Your task to perform on an android device: clear all cookies in the chrome app Image 0: 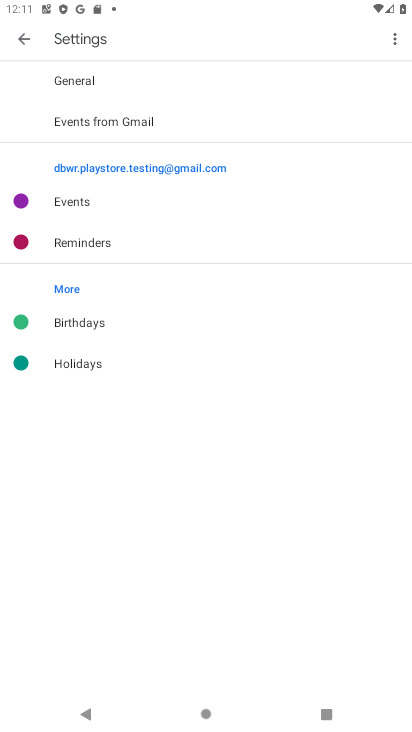
Step 0: press home button
Your task to perform on an android device: clear all cookies in the chrome app Image 1: 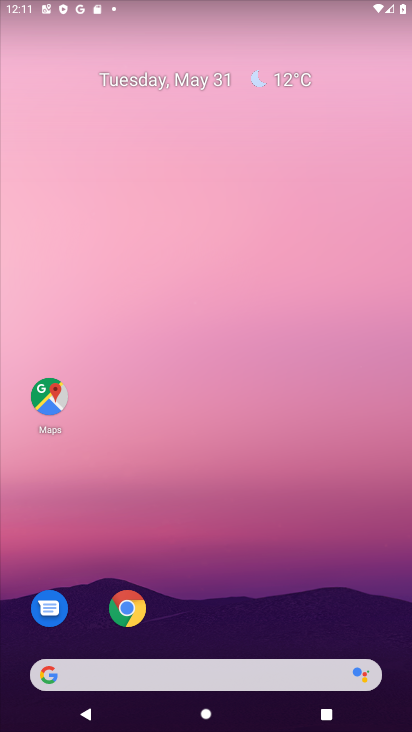
Step 1: click (125, 608)
Your task to perform on an android device: clear all cookies in the chrome app Image 2: 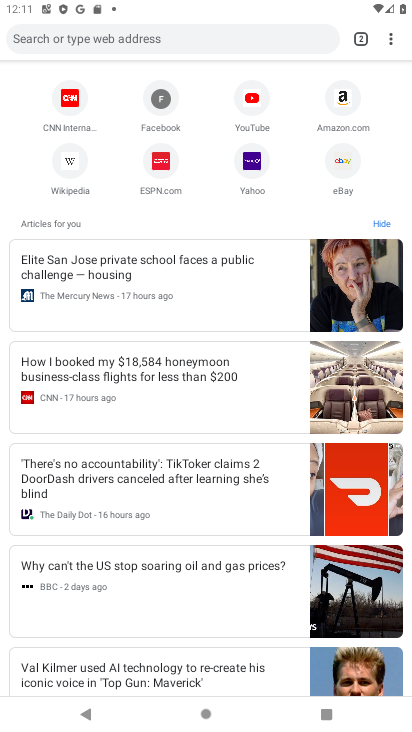
Step 2: click (385, 36)
Your task to perform on an android device: clear all cookies in the chrome app Image 3: 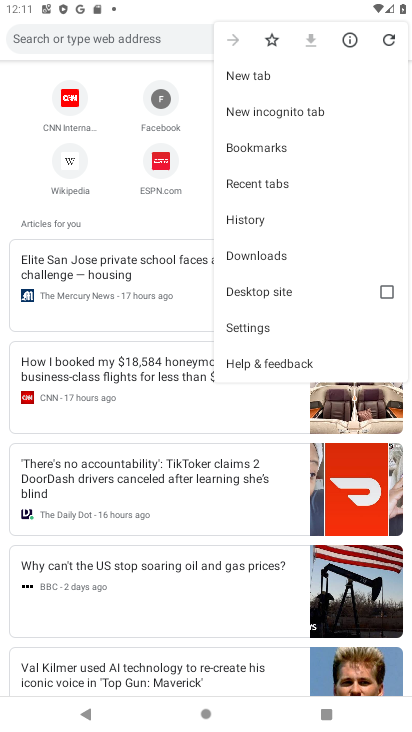
Step 3: click (282, 325)
Your task to perform on an android device: clear all cookies in the chrome app Image 4: 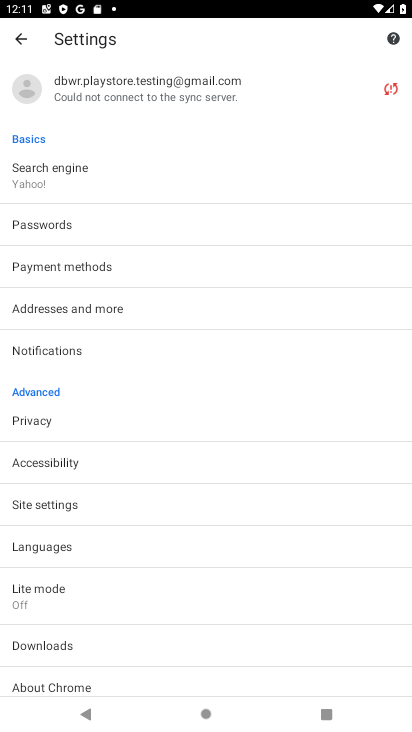
Step 4: drag from (82, 683) to (135, 345)
Your task to perform on an android device: clear all cookies in the chrome app Image 5: 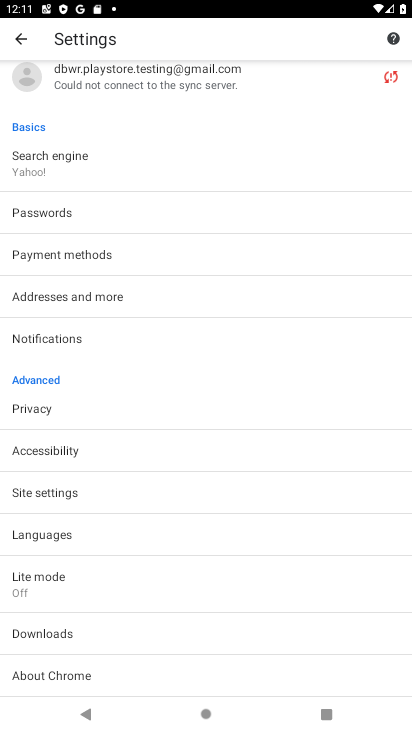
Step 5: click (56, 413)
Your task to perform on an android device: clear all cookies in the chrome app Image 6: 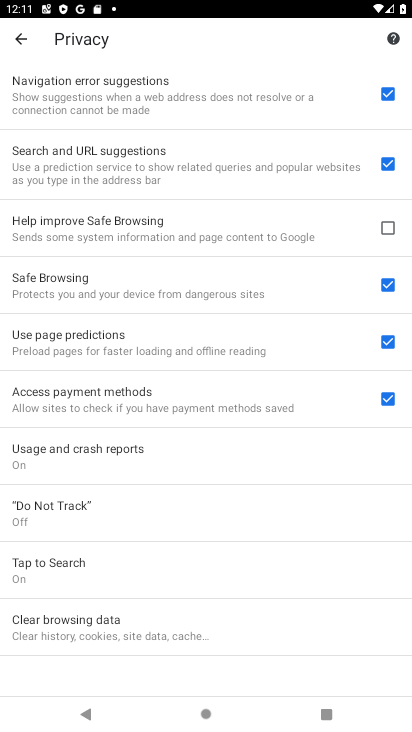
Step 6: click (115, 627)
Your task to perform on an android device: clear all cookies in the chrome app Image 7: 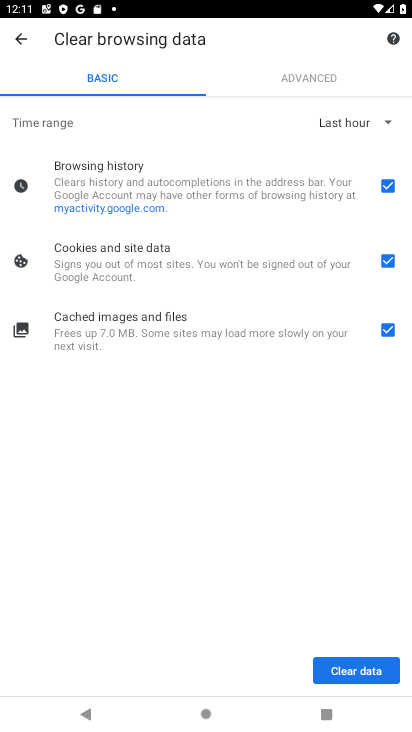
Step 7: click (383, 186)
Your task to perform on an android device: clear all cookies in the chrome app Image 8: 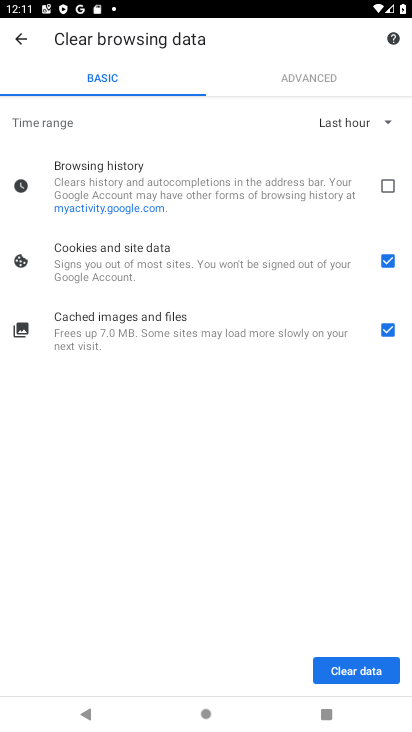
Step 8: click (382, 330)
Your task to perform on an android device: clear all cookies in the chrome app Image 9: 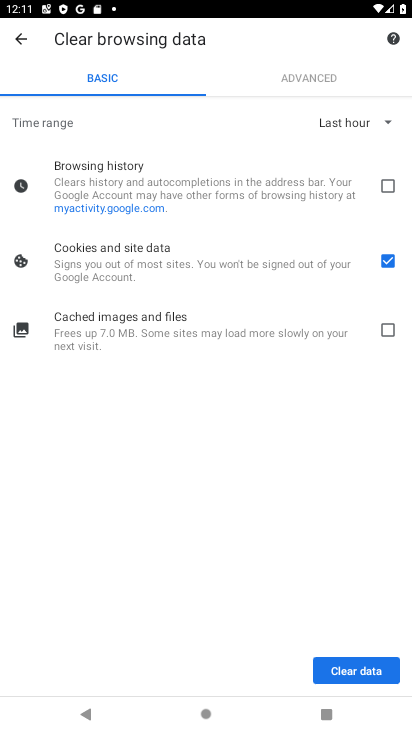
Step 9: click (346, 664)
Your task to perform on an android device: clear all cookies in the chrome app Image 10: 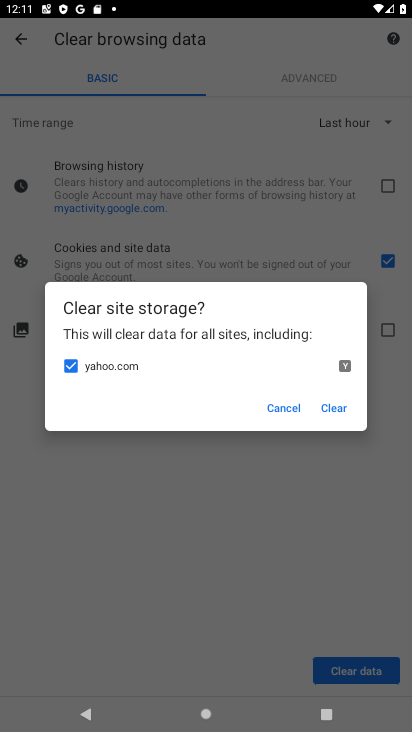
Step 10: click (328, 413)
Your task to perform on an android device: clear all cookies in the chrome app Image 11: 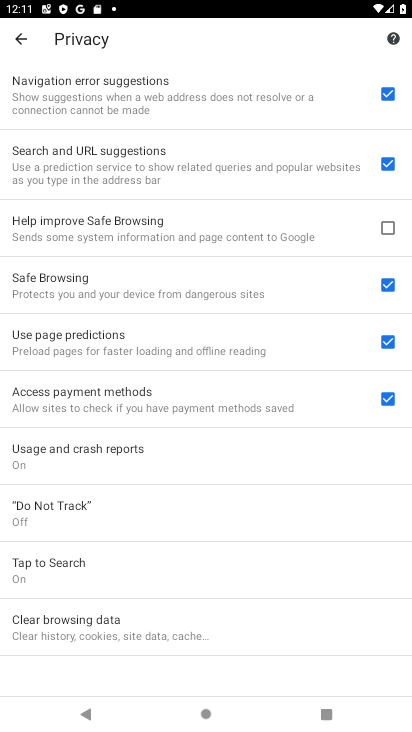
Step 11: task complete